Your task to perform on an android device: Open Wikipedia Image 0: 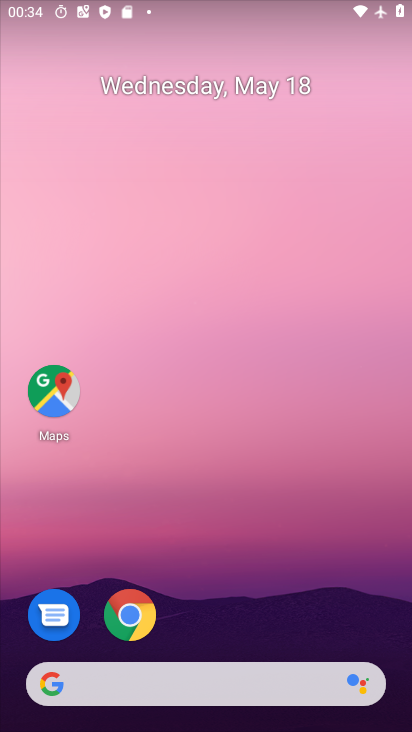
Step 0: click (219, 678)
Your task to perform on an android device: Open Wikipedia Image 1: 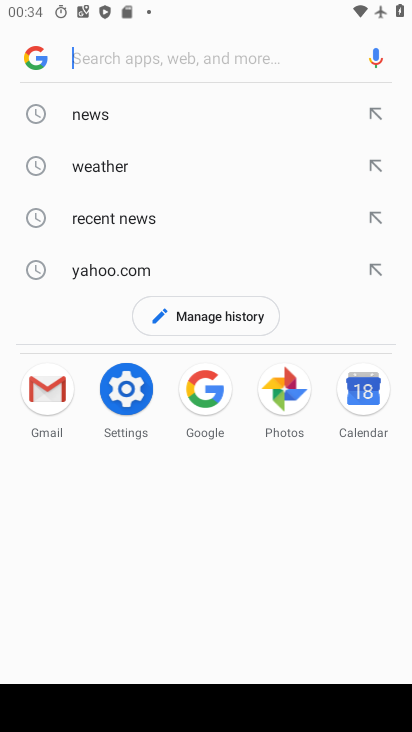
Step 1: type "Wikipedia"
Your task to perform on an android device: Open Wikipedia Image 2: 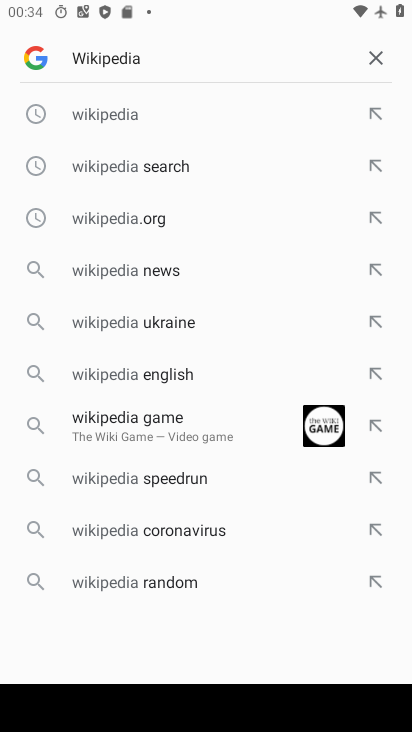
Step 2: click (126, 123)
Your task to perform on an android device: Open Wikipedia Image 3: 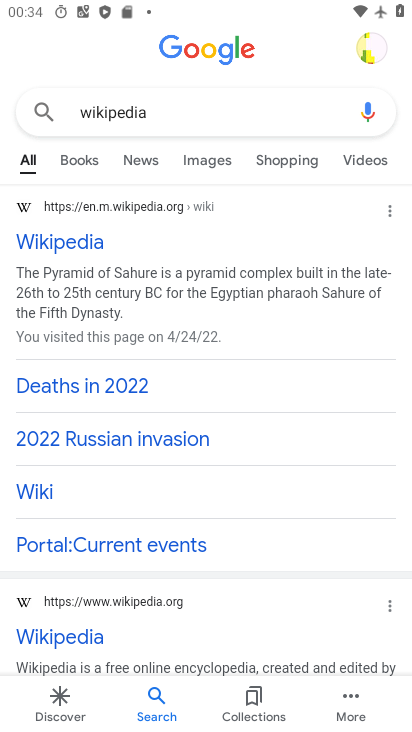
Step 3: click (40, 247)
Your task to perform on an android device: Open Wikipedia Image 4: 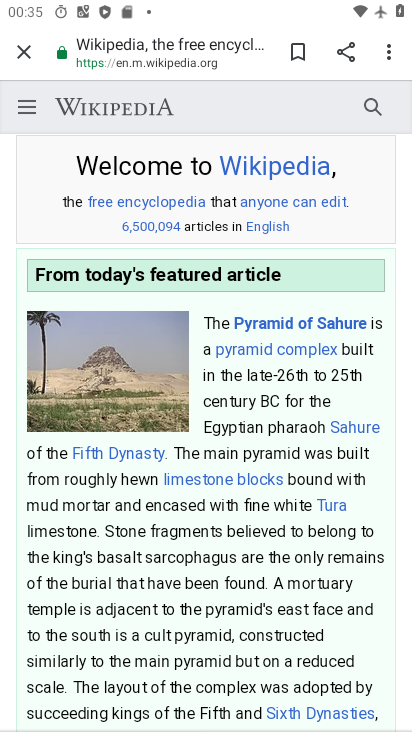
Step 4: task complete